Your task to perform on an android device: open app "Facebook" (install if not already installed) and go to login screen Image 0: 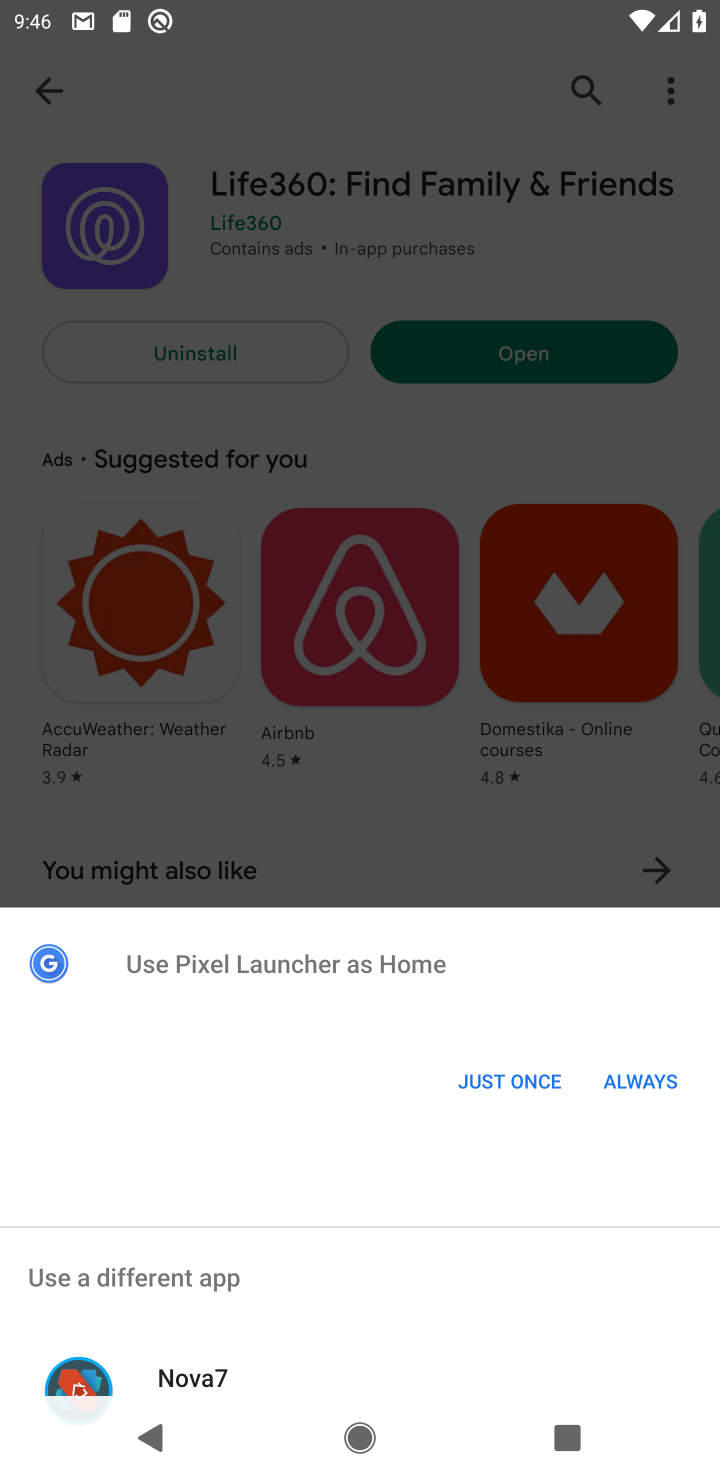
Step 0: press back button
Your task to perform on an android device: open app "Facebook" (install if not already installed) and go to login screen Image 1: 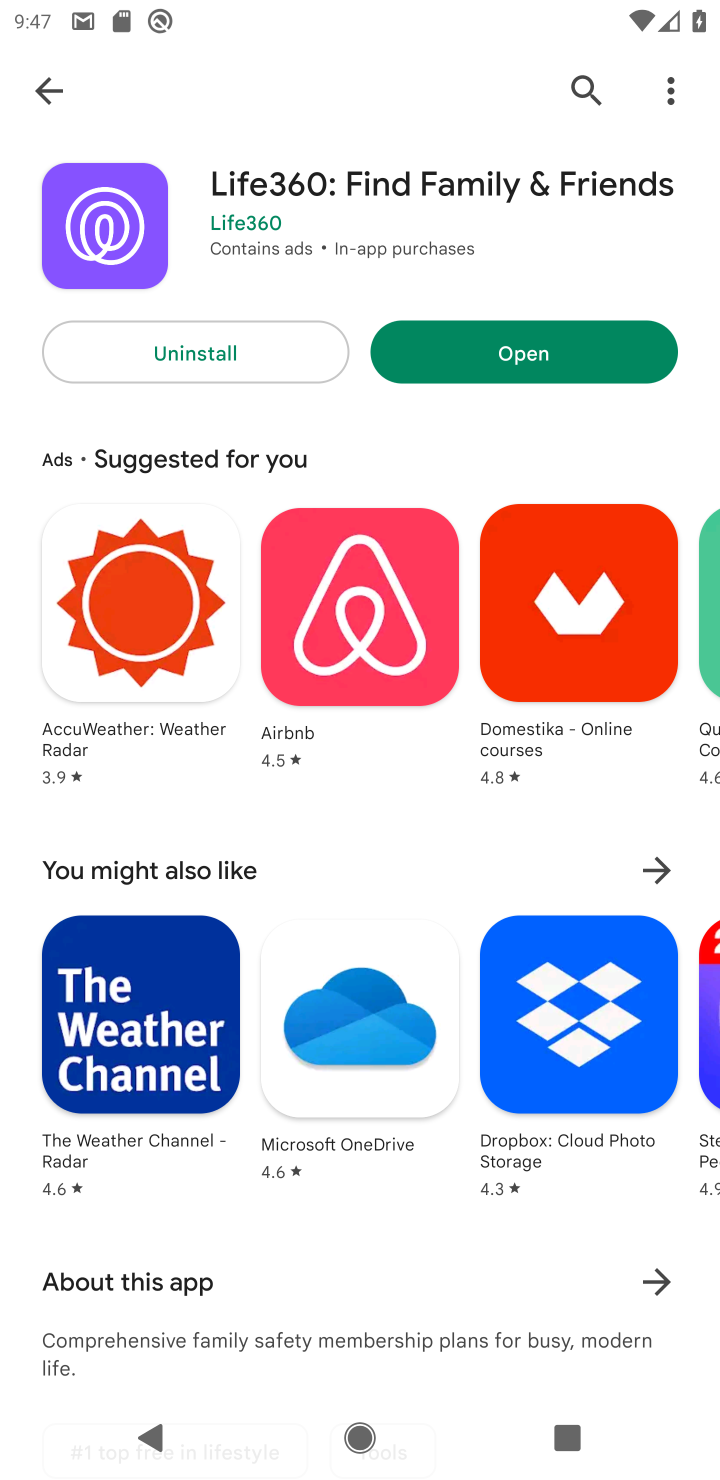
Step 1: press back button
Your task to perform on an android device: open app "Facebook" (install if not already installed) and go to login screen Image 2: 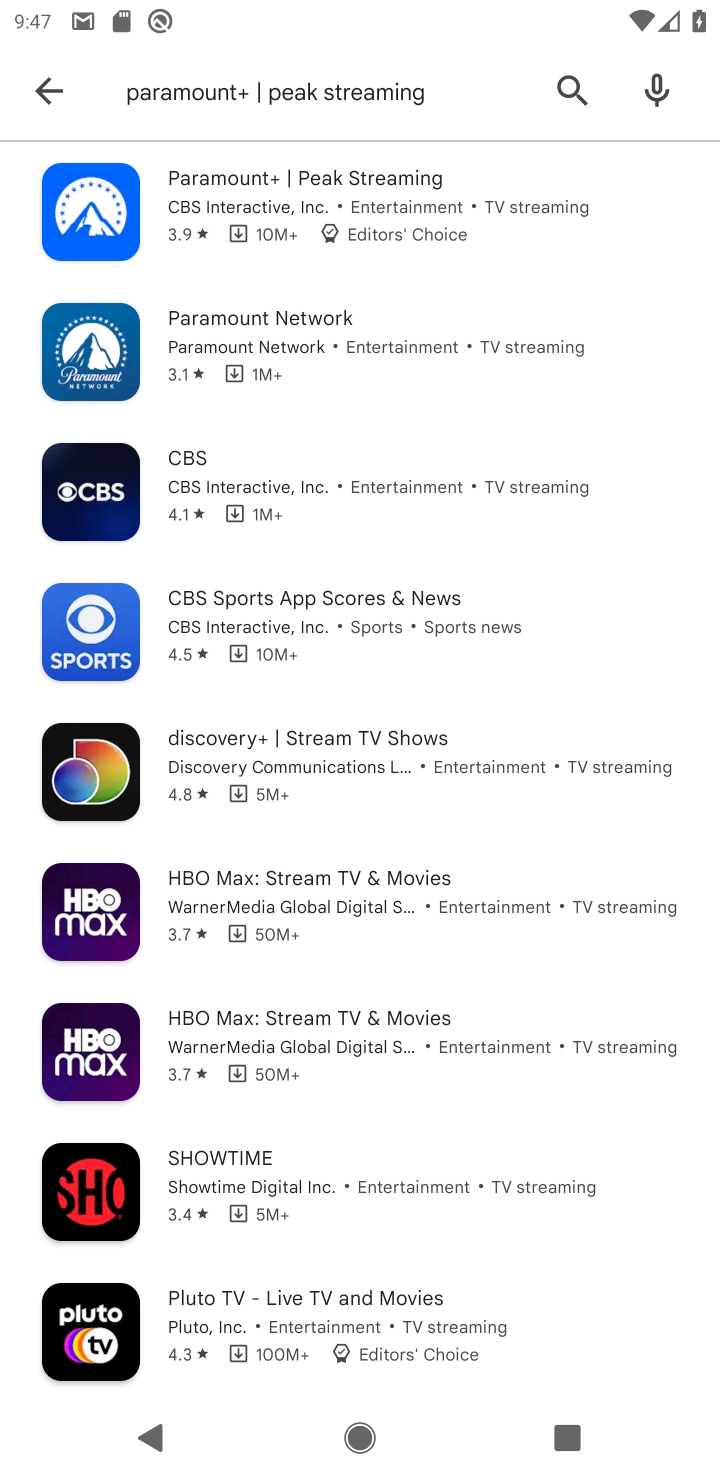
Step 2: press back button
Your task to perform on an android device: open app "Facebook" (install if not already installed) and go to login screen Image 3: 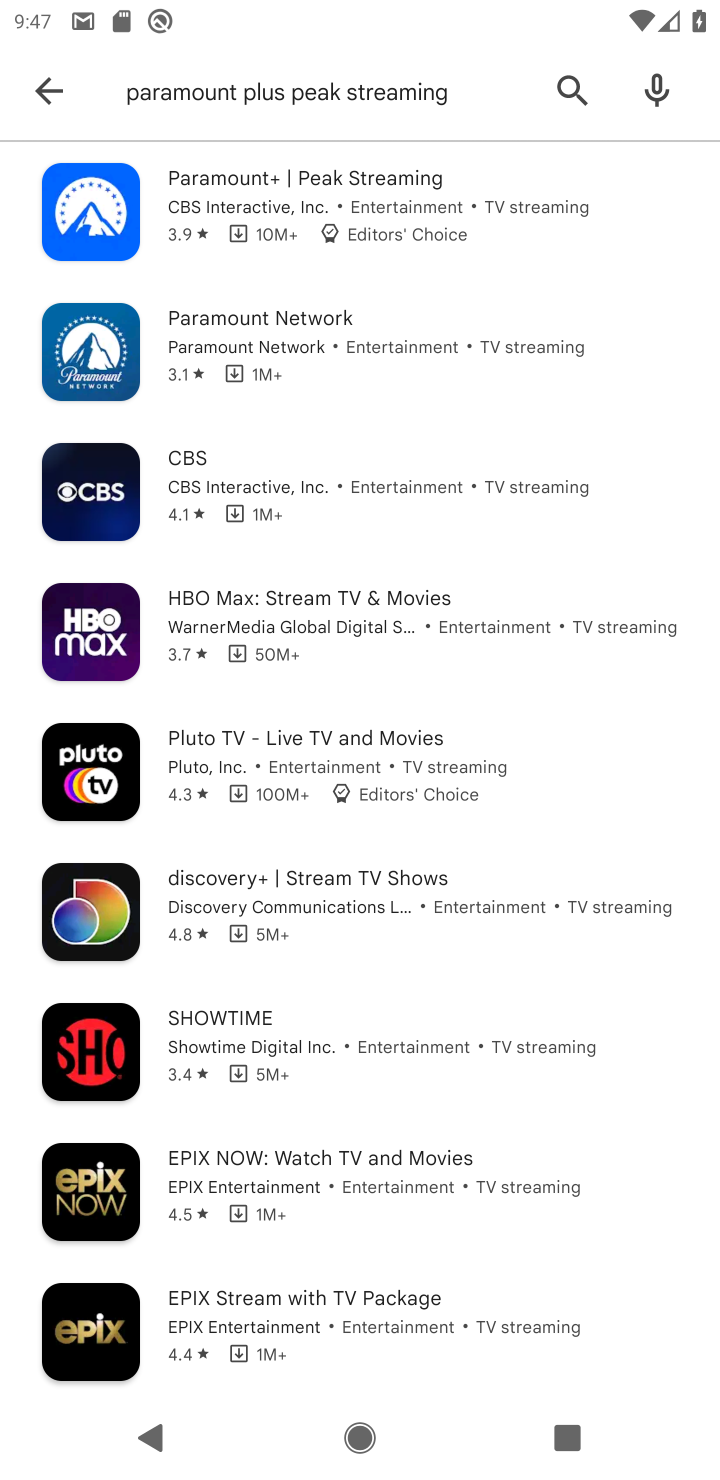
Step 3: press back button
Your task to perform on an android device: open app "Facebook" (install if not already installed) and go to login screen Image 4: 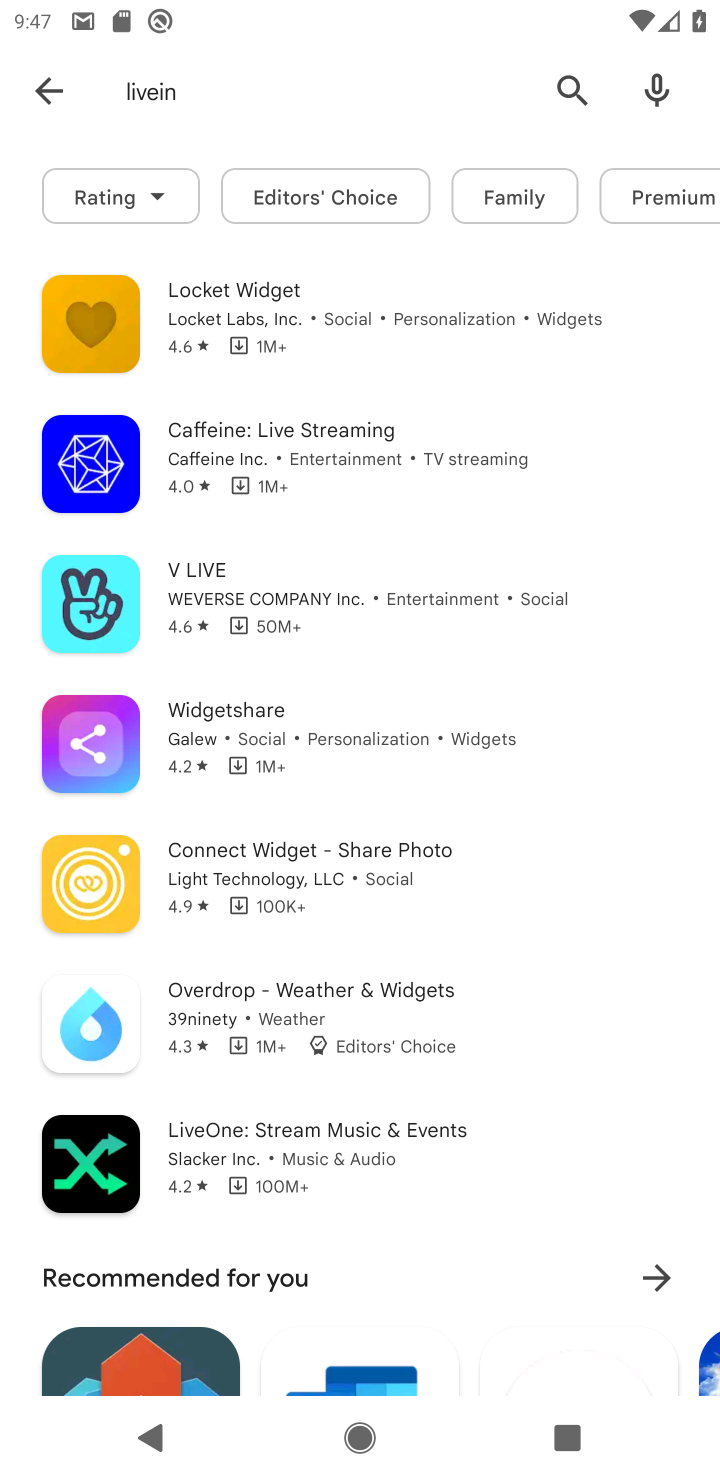
Step 4: press back button
Your task to perform on an android device: open app "Facebook" (install if not already installed) and go to login screen Image 5: 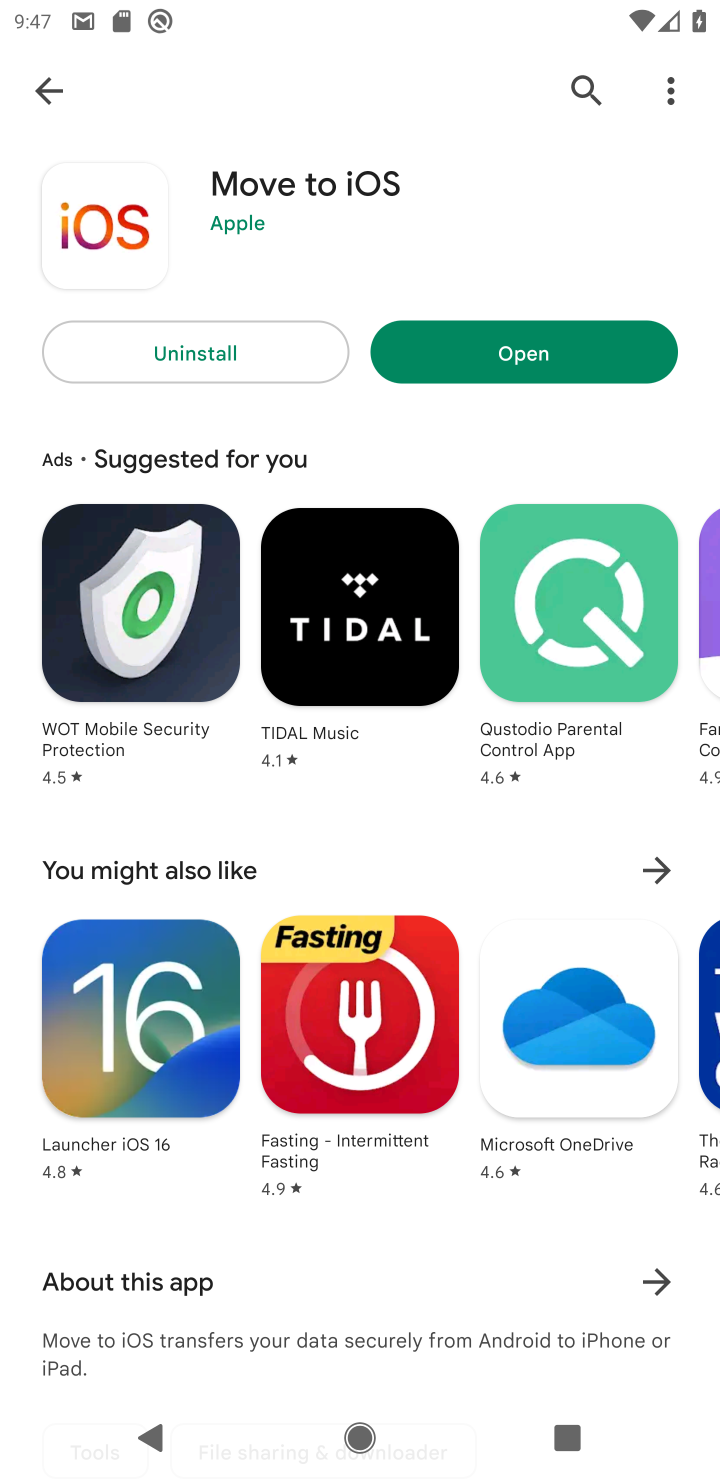
Step 5: press back button
Your task to perform on an android device: open app "Facebook" (install if not already installed) and go to login screen Image 6: 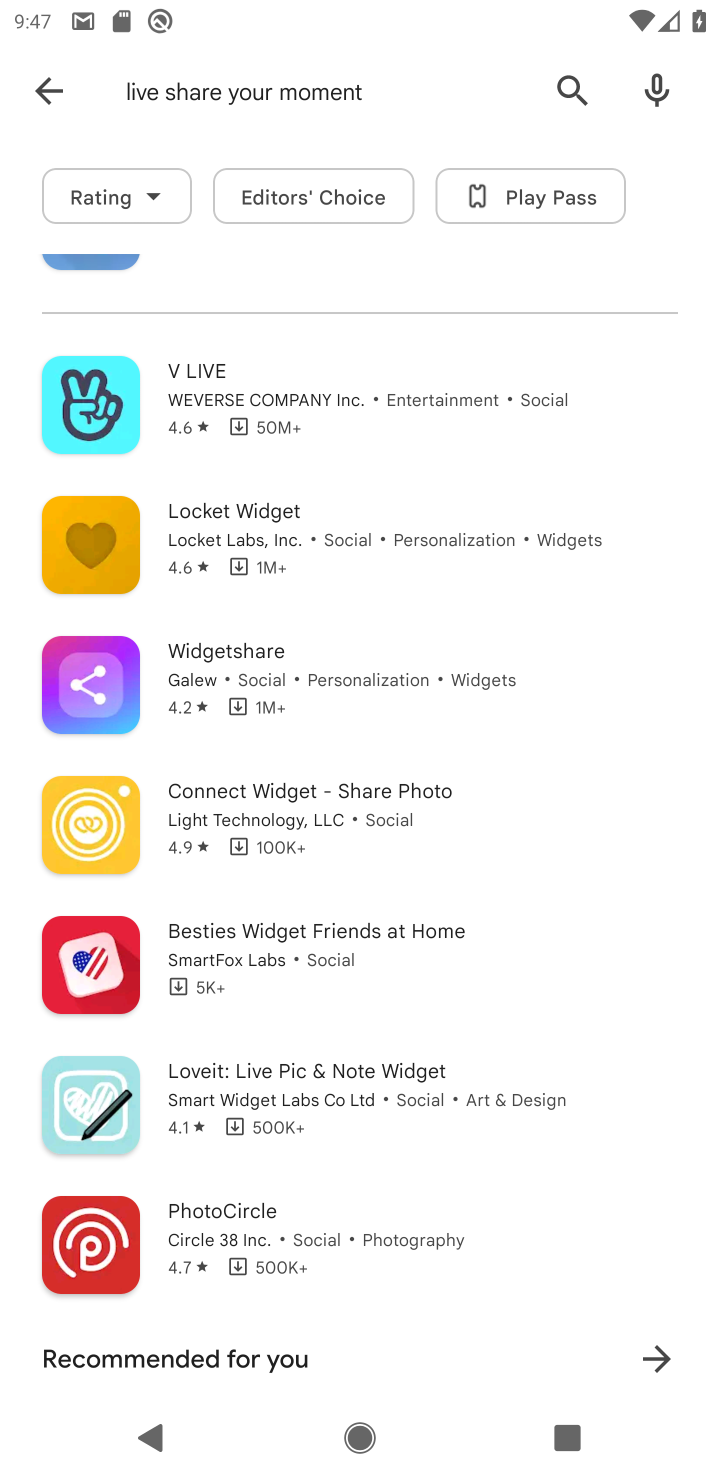
Step 6: click (573, 79)
Your task to perform on an android device: open app "Facebook" (install if not already installed) and go to login screen Image 7: 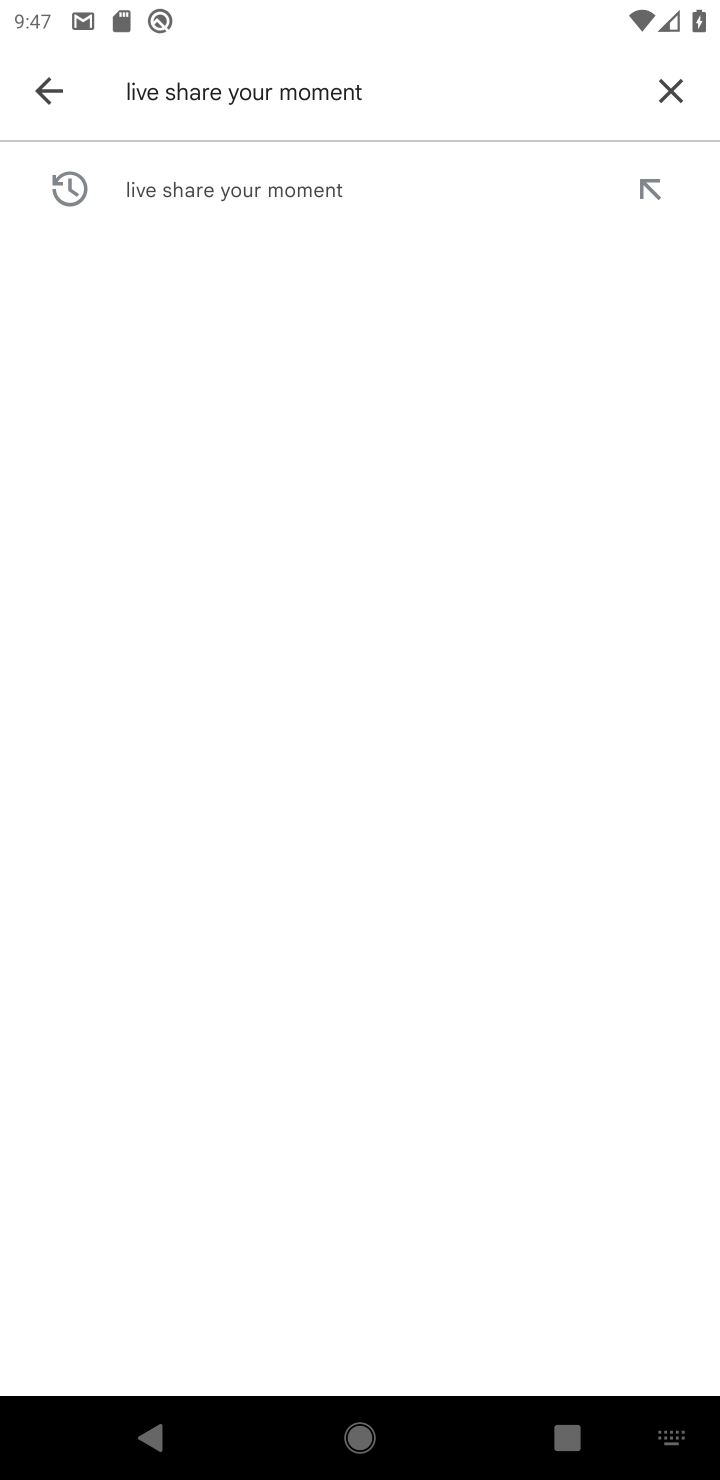
Step 7: click (669, 92)
Your task to perform on an android device: open app "Facebook" (install if not already installed) and go to login screen Image 8: 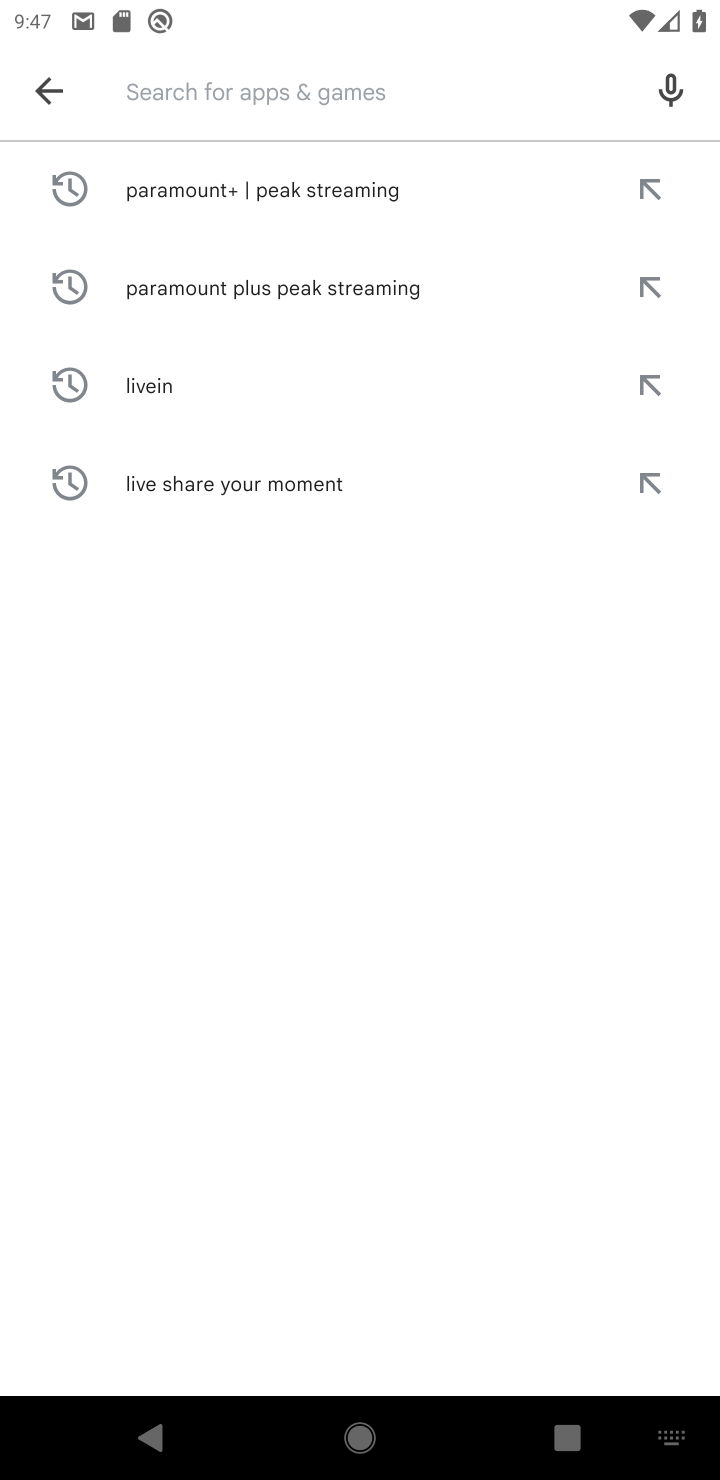
Step 8: type "facebook"
Your task to perform on an android device: open app "Facebook" (install if not already installed) and go to login screen Image 9: 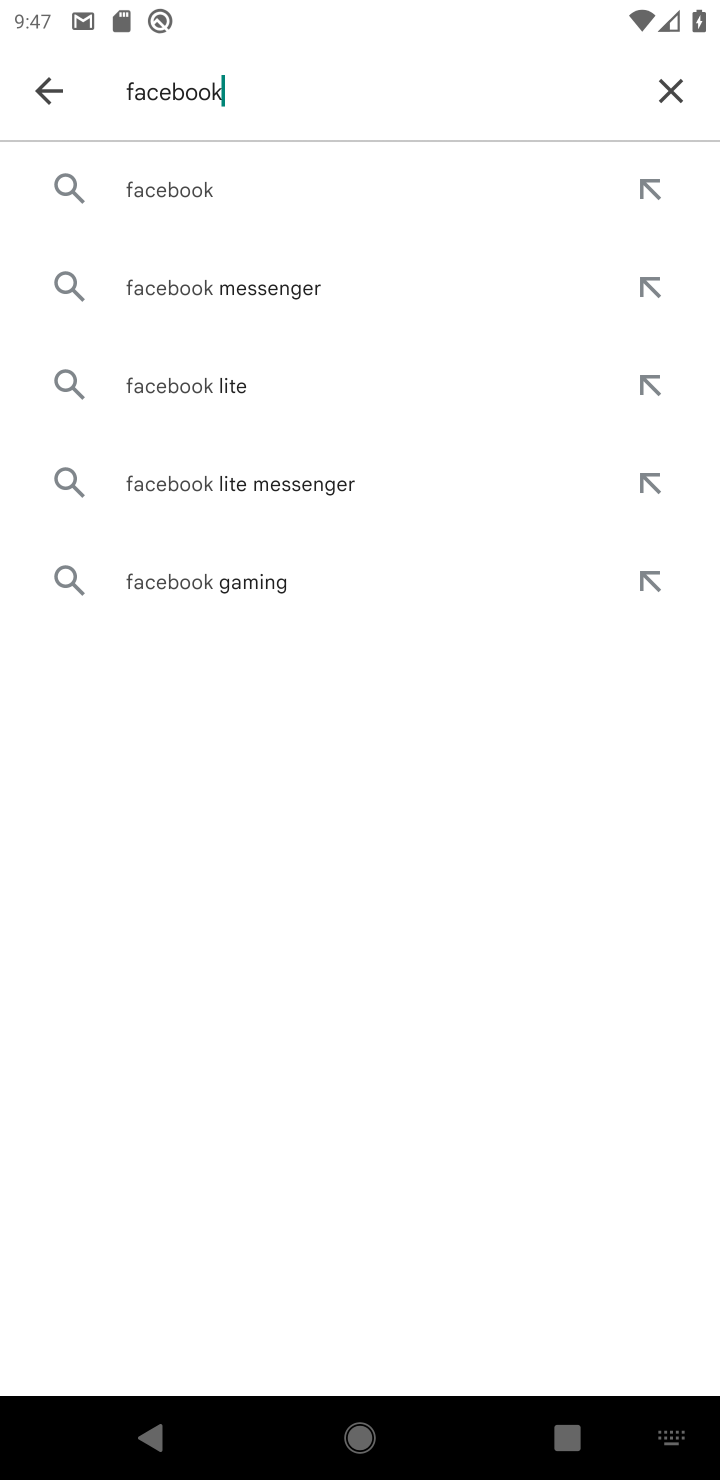
Step 9: click (208, 174)
Your task to perform on an android device: open app "Facebook" (install if not already installed) and go to login screen Image 10: 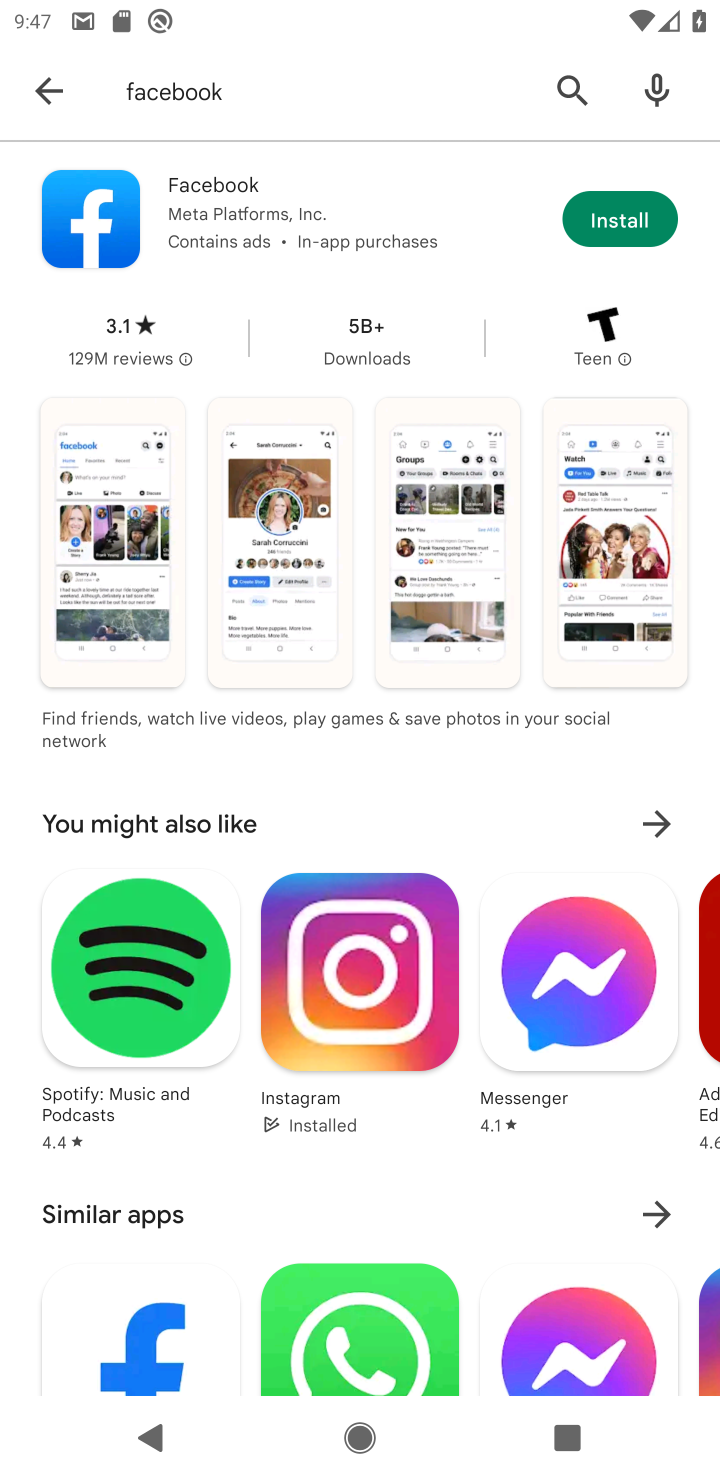
Step 10: click (655, 214)
Your task to perform on an android device: open app "Facebook" (install if not already installed) and go to login screen Image 11: 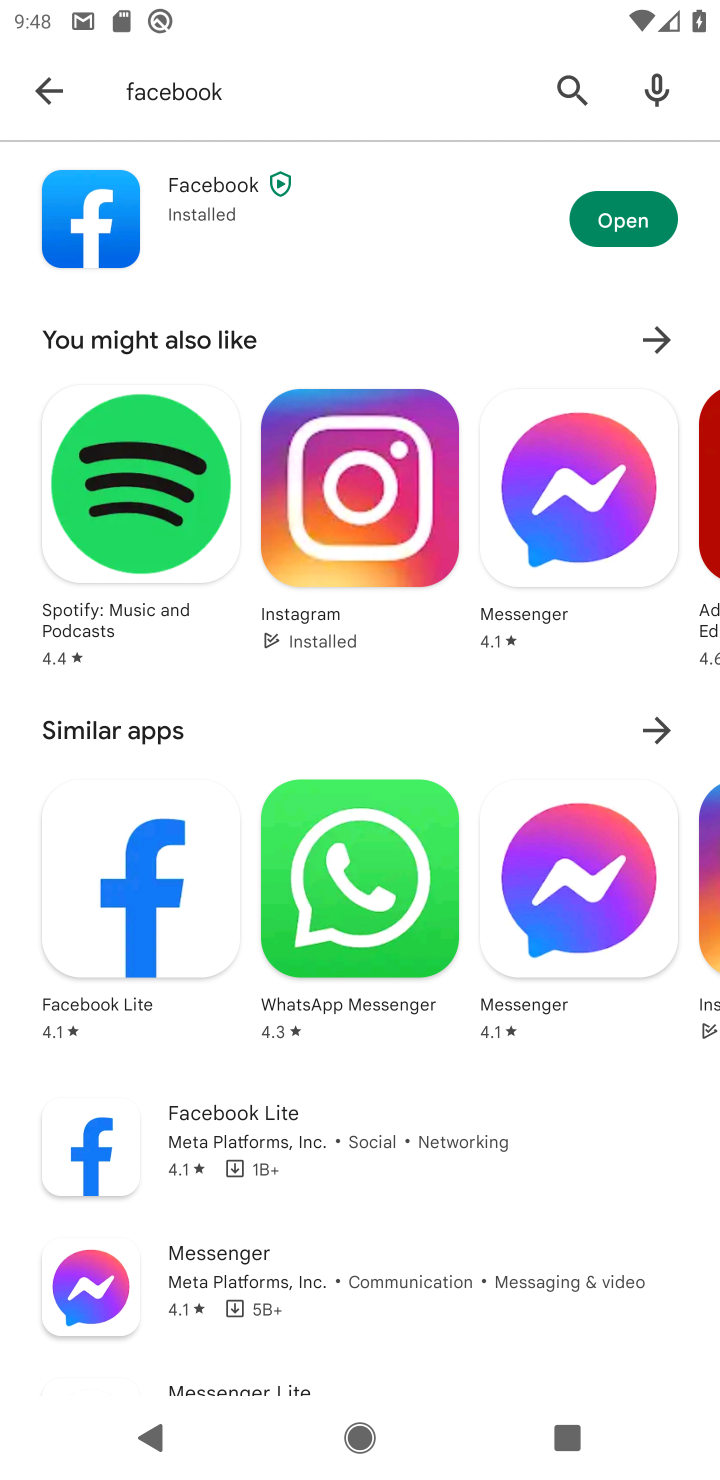
Step 11: click (626, 218)
Your task to perform on an android device: open app "Facebook" (install if not already installed) and go to login screen Image 12: 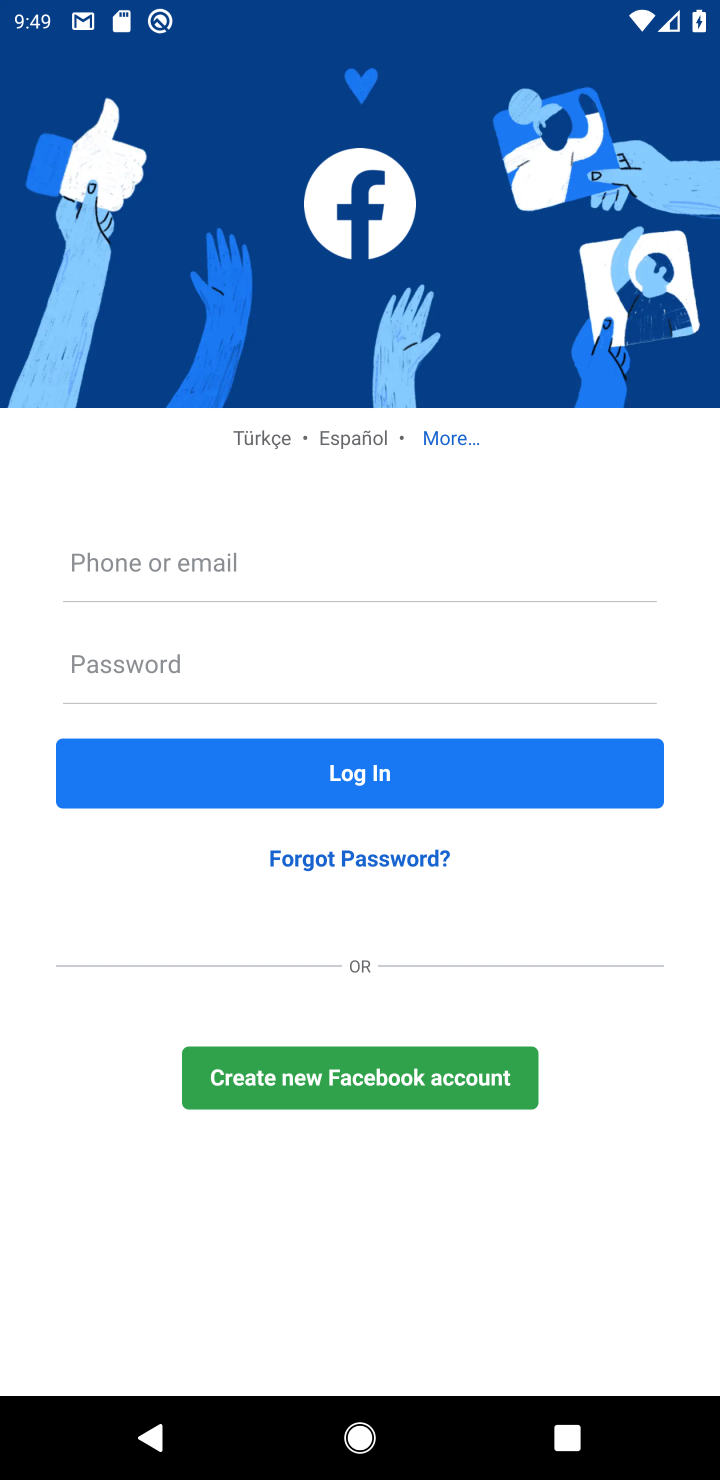
Step 12: task complete